Your task to perform on an android device: allow notifications from all sites in the chrome app Image 0: 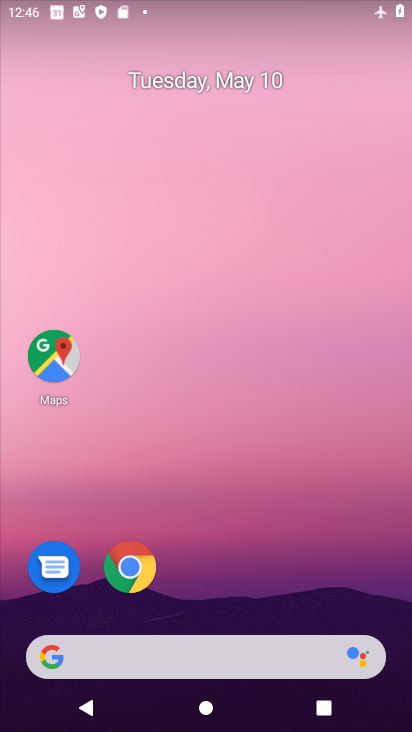
Step 0: drag from (354, 595) to (213, 93)
Your task to perform on an android device: allow notifications from all sites in the chrome app Image 1: 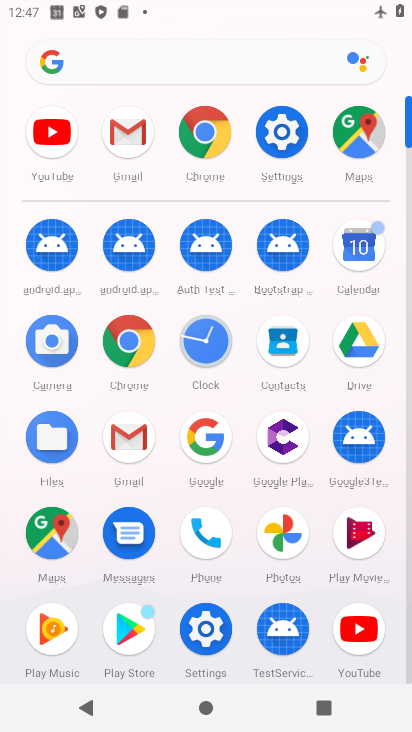
Step 1: click (145, 363)
Your task to perform on an android device: allow notifications from all sites in the chrome app Image 2: 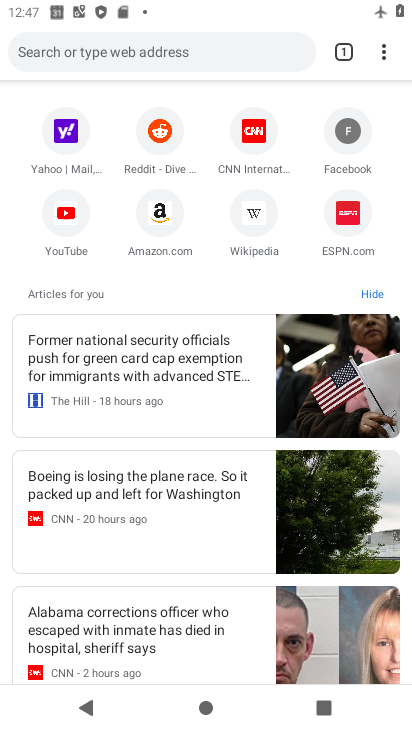
Step 2: click (387, 42)
Your task to perform on an android device: allow notifications from all sites in the chrome app Image 3: 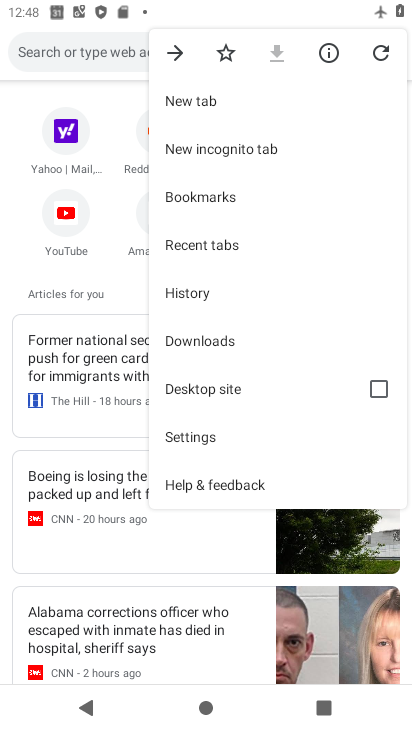
Step 3: click (213, 437)
Your task to perform on an android device: allow notifications from all sites in the chrome app Image 4: 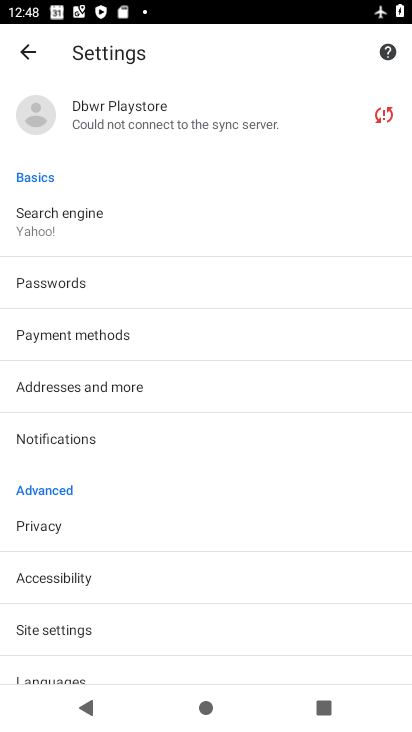
Step 4: click (117, 423)
Your task to perform on an android device: allow notifications from all sites in the chrome app Image 5: 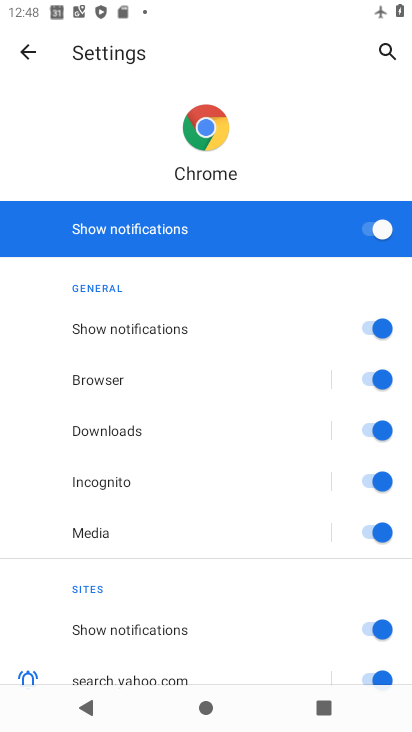
Step 5: task complete